Your task to perform on an android device: stop showing notifications on the lock screen Image 0: 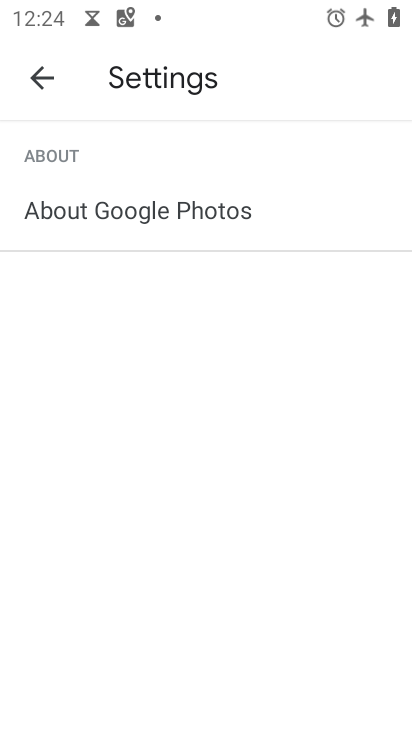
Step 0: press home button
Your task to perform on an android device: stop showing notifications on the lock screen Image 1: 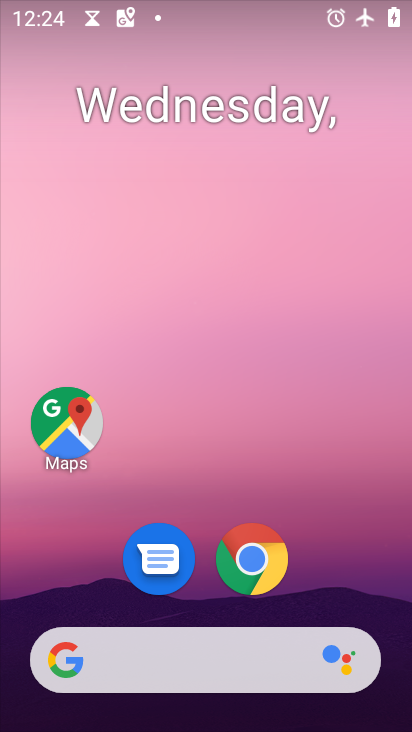
Step 1: drag from (341, 551) to (290, 48)
Your task to perform on an android device: stop showing notifications on the lock screen Image 2: 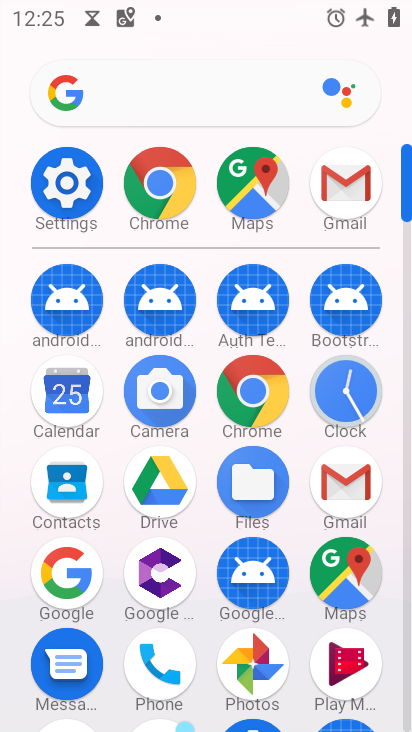
Step 2: click (72, 195)
Your task to perform on an android device: stop showing notifications on the lock screen Image 3: 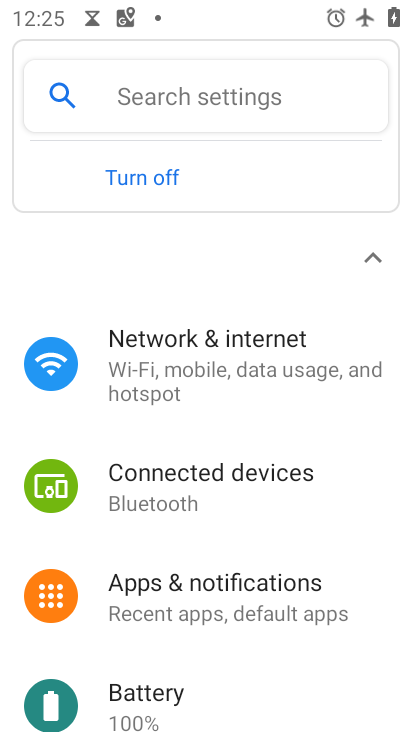
Step 3: drag from (269, 576) to (227, 34)
Your task to perform on an android device: stop showing notifications on the lock screen Image 4: 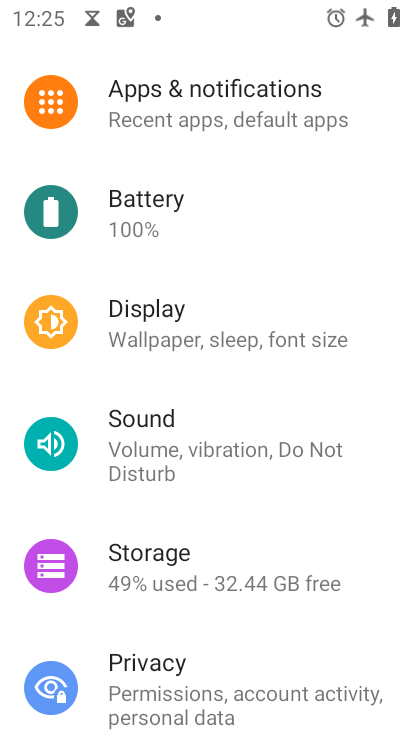
Step 4: drag from (289, 212) to (286, 723)
Your task to perform on an android device: stop showing notifications on the lock screen Image 5: 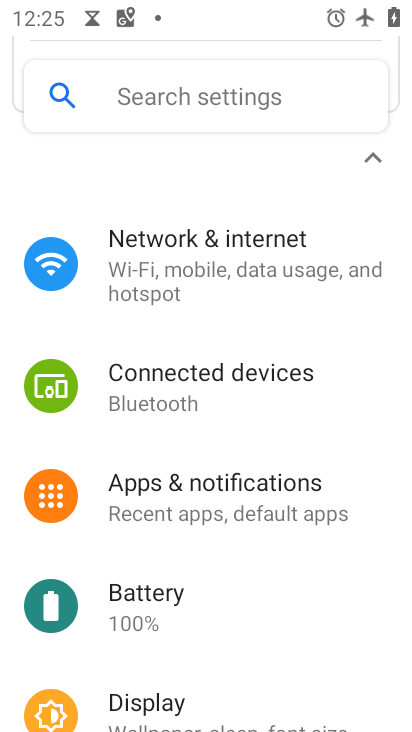
Step 5: click (270, 482)
Your task to perform on an android device: stop showing notifications on the lock screen Image 6: 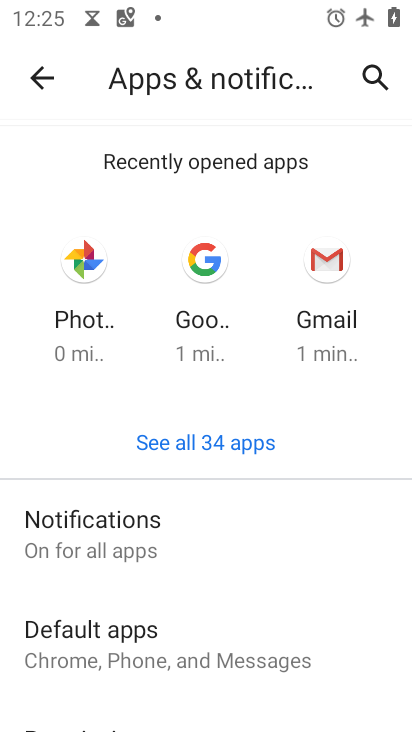
Step 6: click (101, 532)
Your task to perform on an android device: stop showing notifications on the lock screen Image 7: 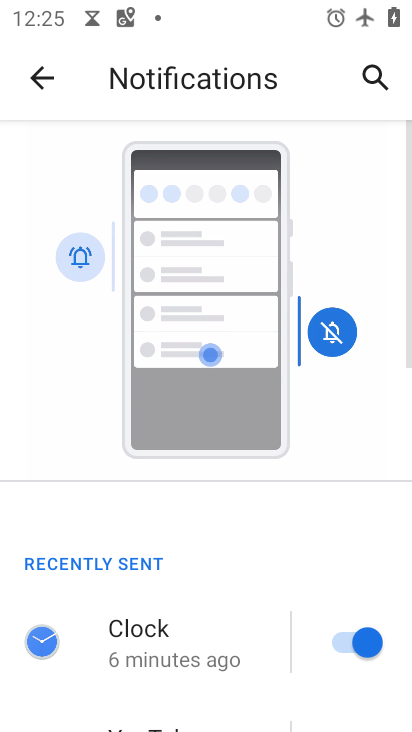
Step 7: drag from (164, 626) to (129, 2)
Your task to perform on an android device: stop showing notifications on the lock screen Image 8: 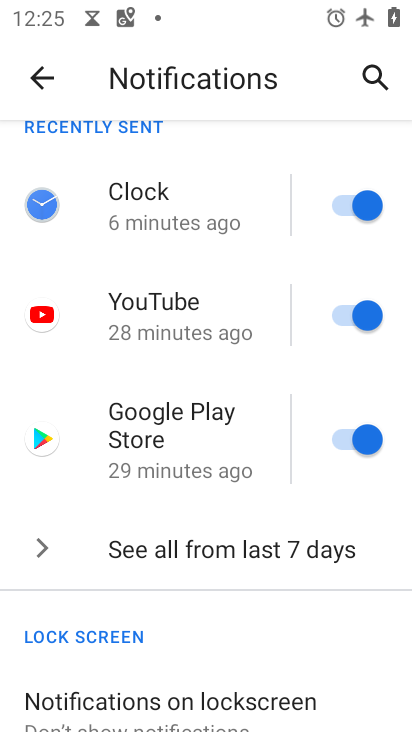
Step 8: drag from (115, 653) to (75, 46)
Your task to perform on an android device: stop showing notifications on the lock screen Image 9: 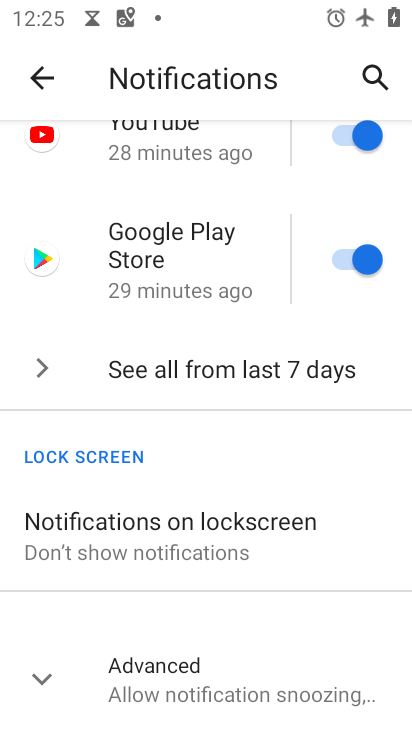
Step 9: click (201, 540)
Your task to perform on an android device: stop showing notifications on the lock screen Image 10: 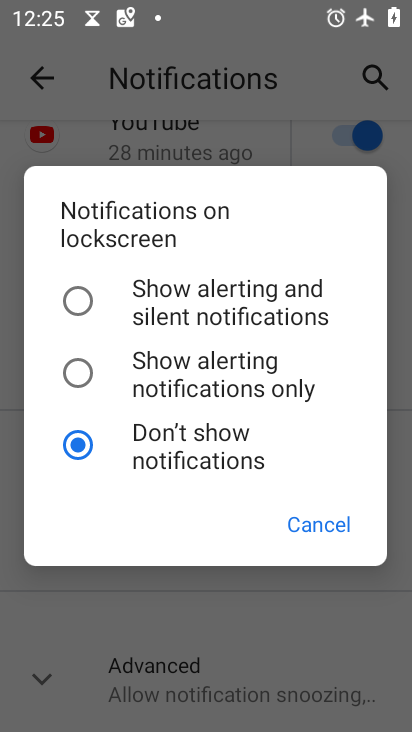
Step 10: click (83, 384)
Your task to perform on an android device: stop showing notifications on the lock screen Image 11: 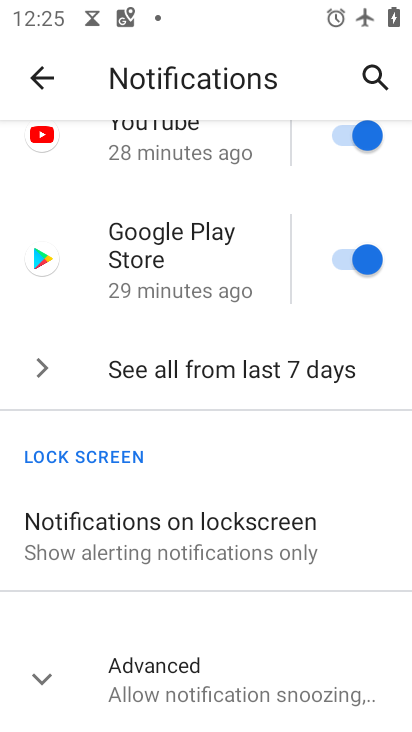
Step 11: task complete